Your task to perform on an android device: turn on bluetooth scan Image 0: 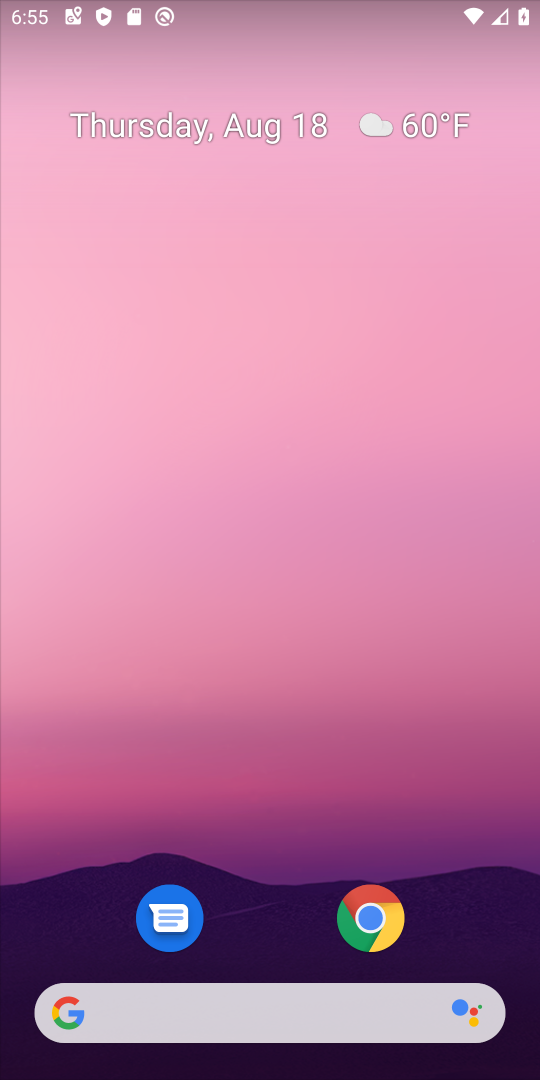
Step 0: press home button
Your task to perform on an android device: turn on bluetooth scan Image 1: 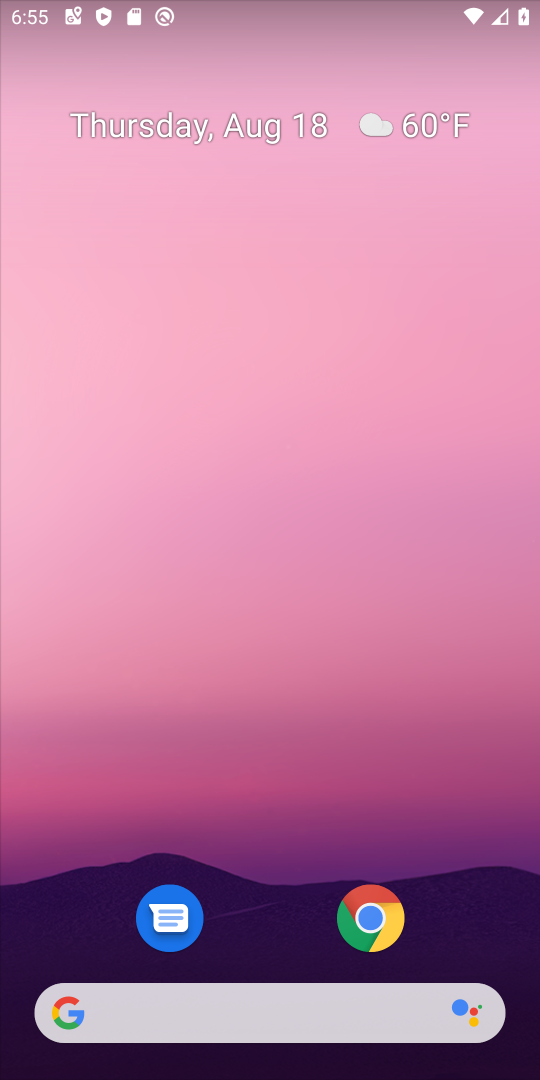
Step 1: drag from (289, 892) to (413, 23)
Your task to perform on an android device: turn on bluetooth scan Image 2: 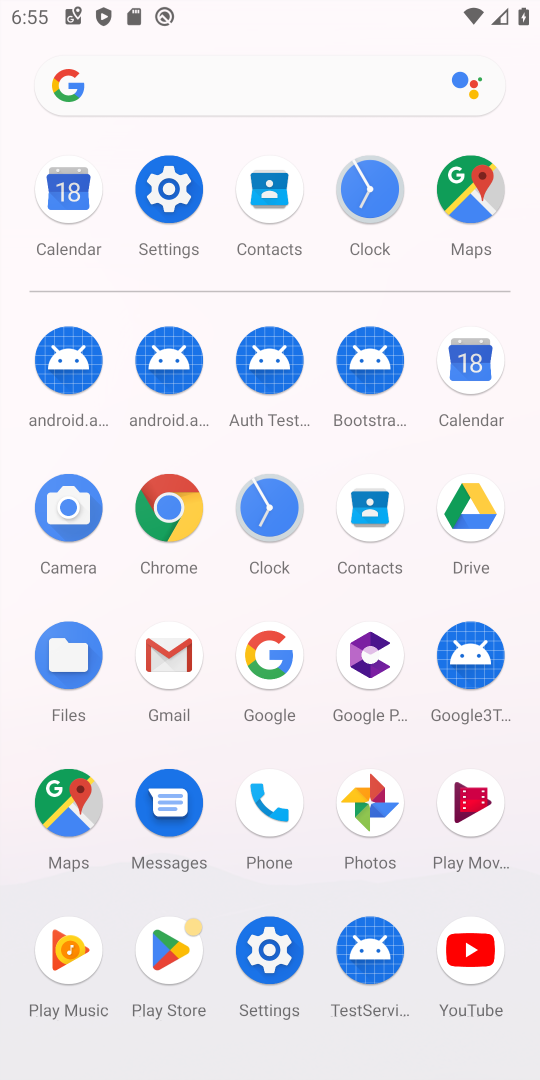
Step 2: click (174, 200)
Your task to perform on an android device: turn on bluetooth scan Image 3: 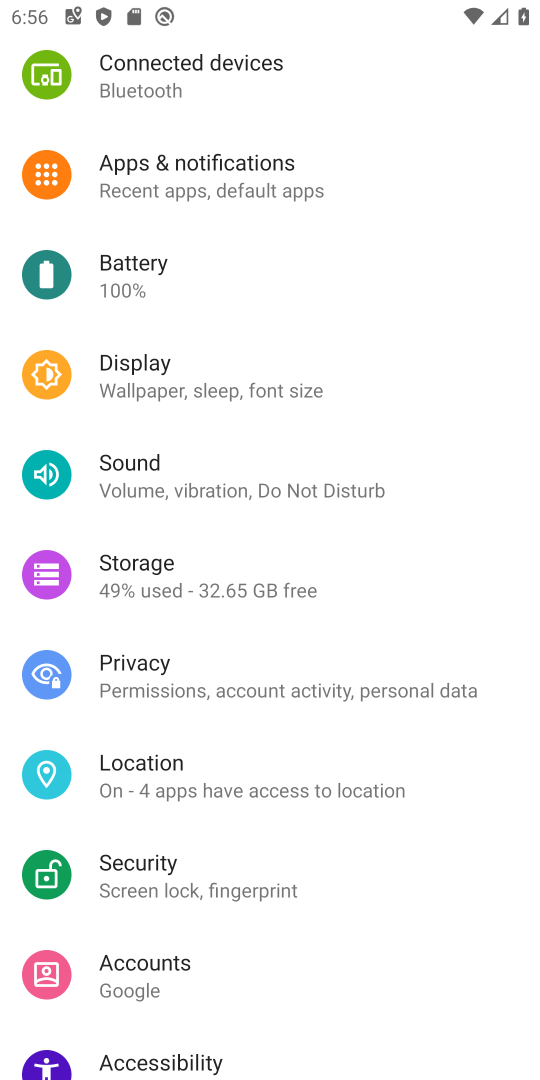
Step 3: click (130, 772)
Your task to perform on an android device: turn on bluetooth scan Image 4: 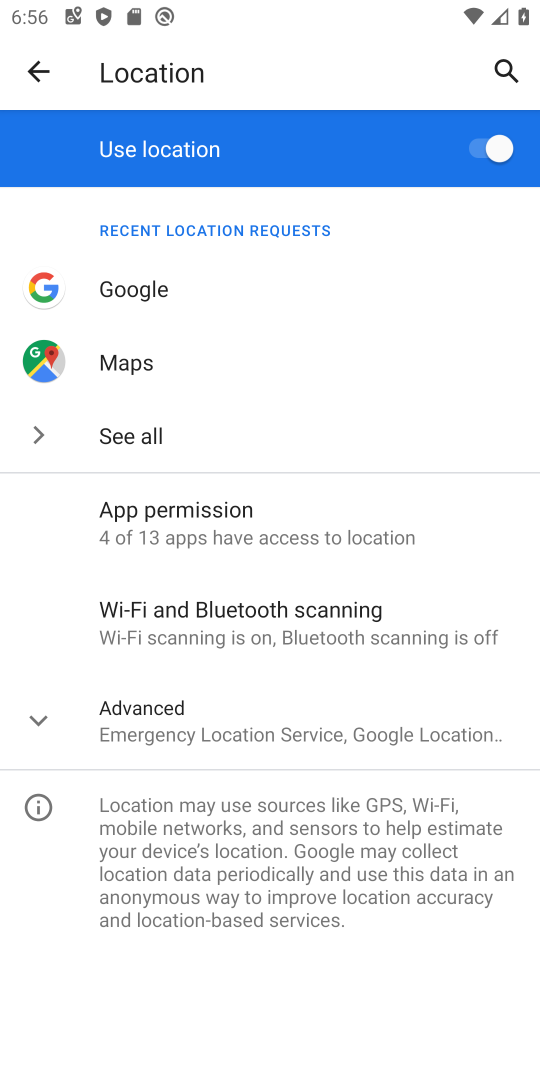
Step 4: click (210, 624)
Your task to perform on an android device: turn on bluetooth scan Image 5: 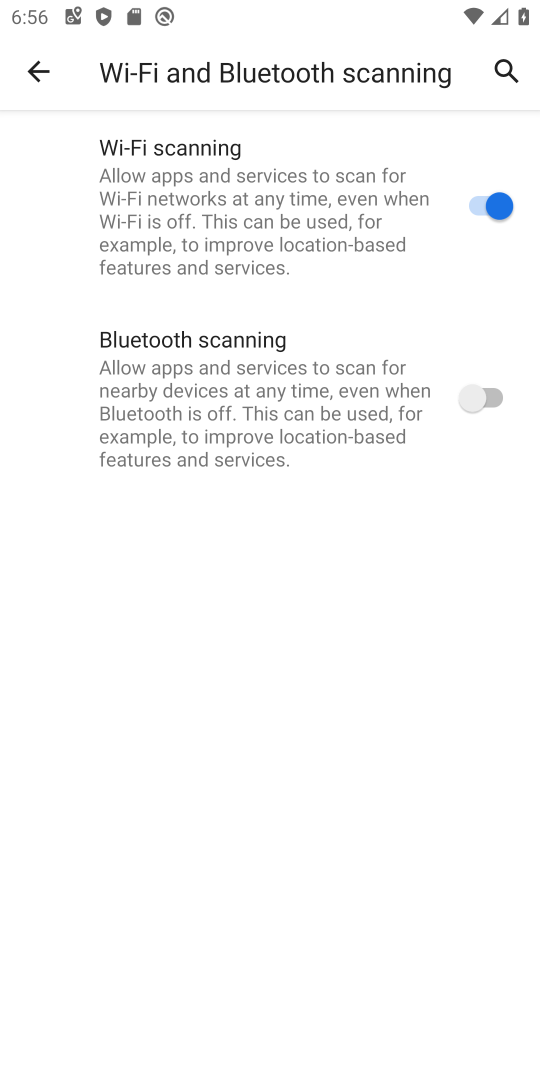
Step 5: click (472, 393)
Your task to perform on an android device: turn on bluetooth scan Image 6: 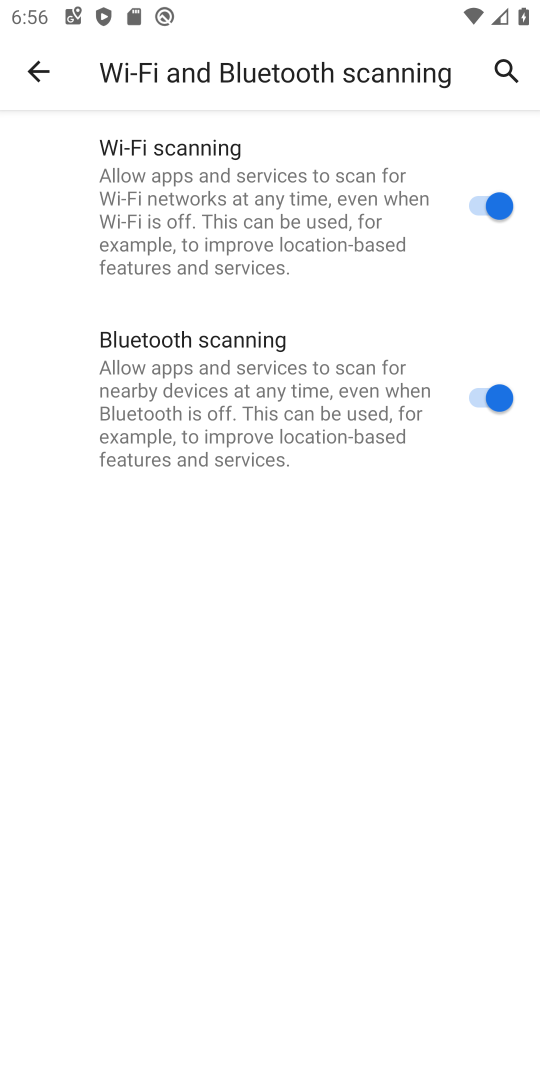
Step 6: task complete